Your task to perform on an android device: Go to privacy settings Image 0: 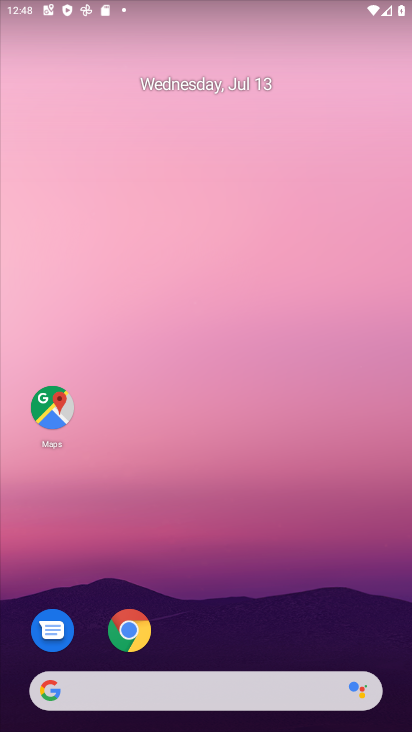
Step 0: drag from (388, 655) to (215, 17)
Your task to perform on an android device: Go to privacy settings Image 1: 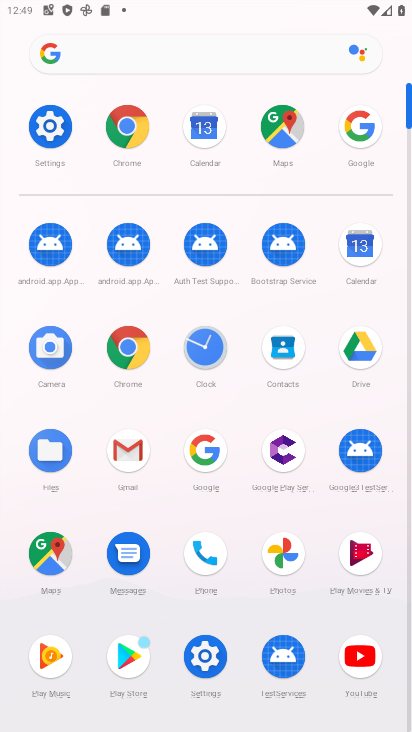
Step 1: click (198, 662)
Your task to perform on an android device: Go to privacy settings Image 2: 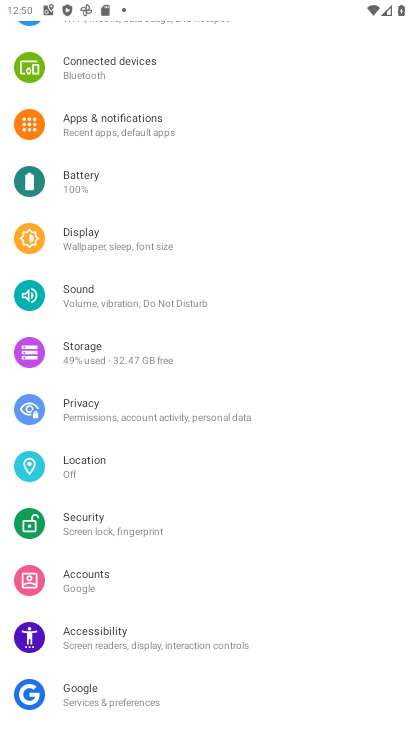
Step 2: click (98, 407)
Your task to perform on an android device: Go to privacy settings Image 3: 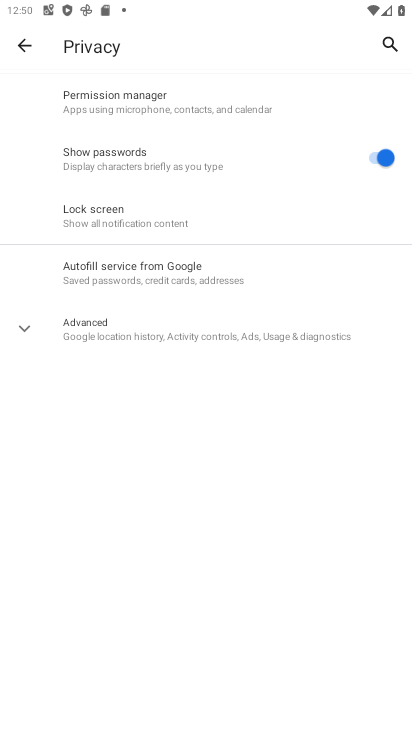
Step 3: task complete